Your task to perform on an android device: snooze an email in the gmail app Image 0: 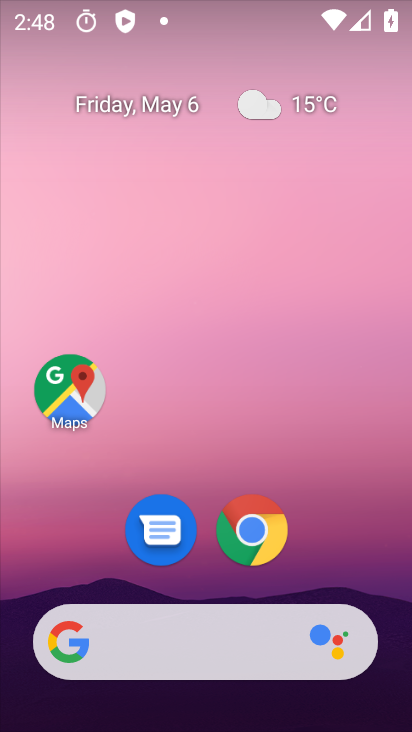
Step 0: drag from (341, 535) to (410, 18)
Your task to perform on an android device: snooze an email in the gmail app Image 1: 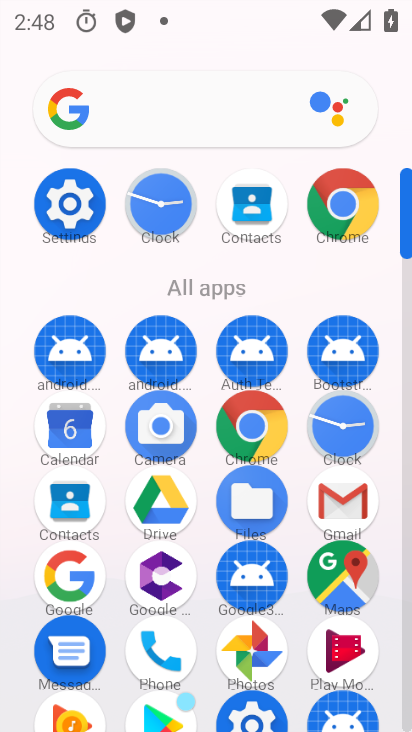
Step 1: click (331, 520)
Your task to perform on an android device: snooze an email in the gmail app Image 2: 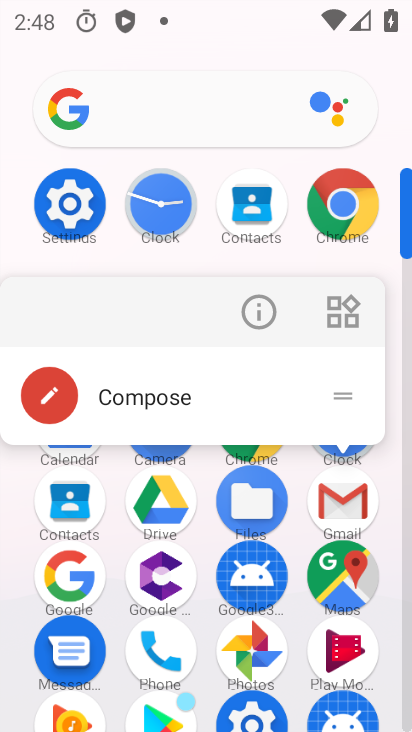
Step 2: click (355, 491)
Your task to perform on an android device: snooze an email in the gmail app Image 3: 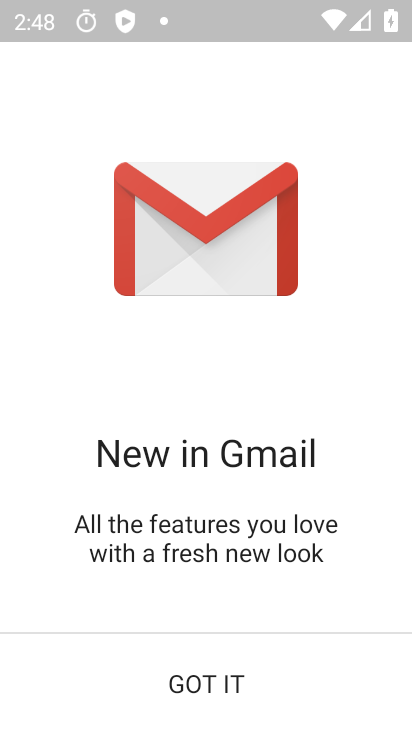
Step 3: click (238, 693)
Your task to perform on an android device: snooze an email in the gmail app Image 4: 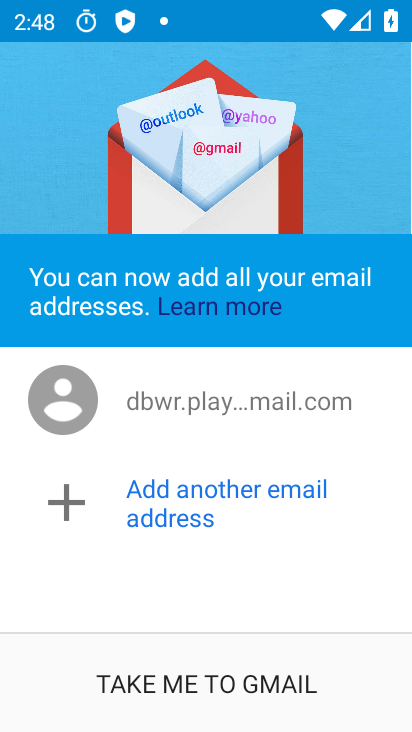
Step 4: click (236, 689)
Your task to perform on an android device: snooze an email in the gmail app Image 5: 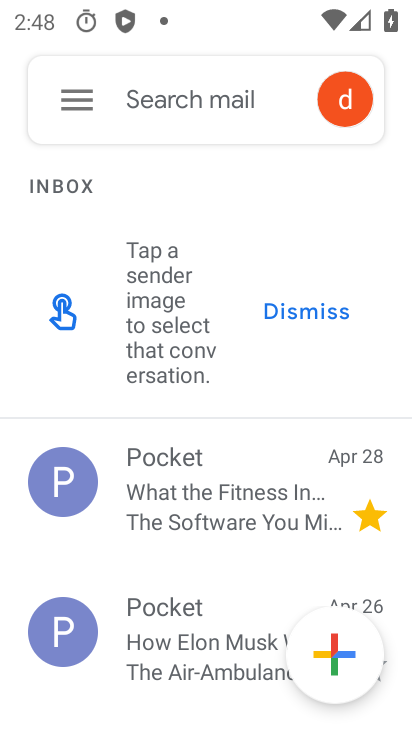
Step 5: click (176, 508)
Your task to perform on an android device: snooze an email in the gmail app Image 6: 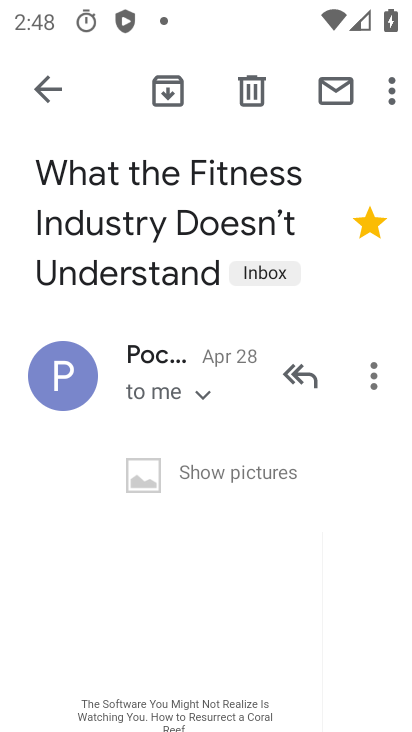
Step 6: click (390, 375)
Your task to perform on an android device: snooze an email in the gmail app Image 7: 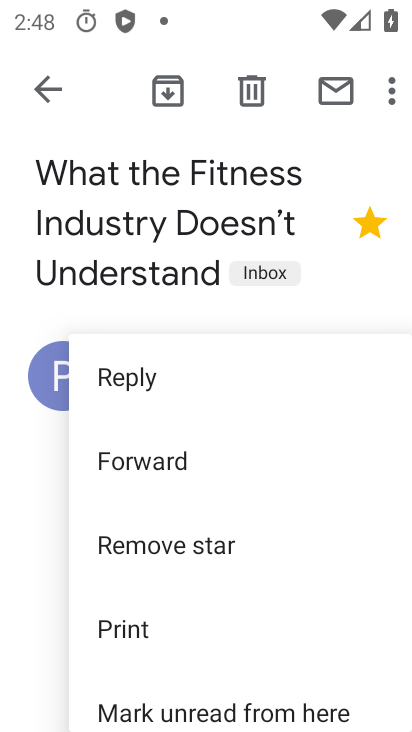
Step 7: drag from (300, 593) to (350, 306)
Your task to perform on an android device: snooze an email in the gmail app Image 8: 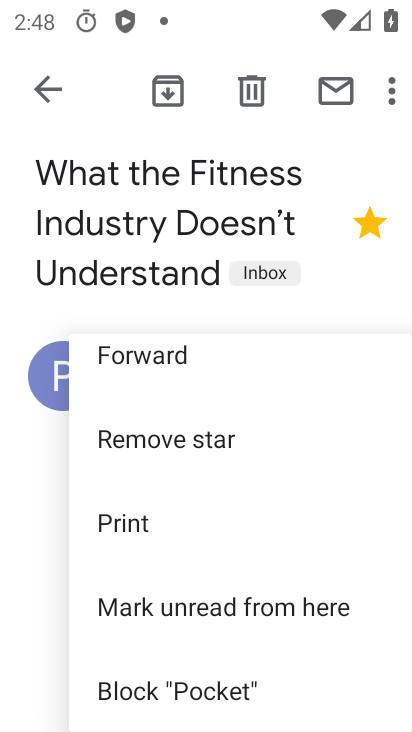
Step 8: click (381, 92)
Your task to perform on an android device: snooze an email in the gmail app Image 9: 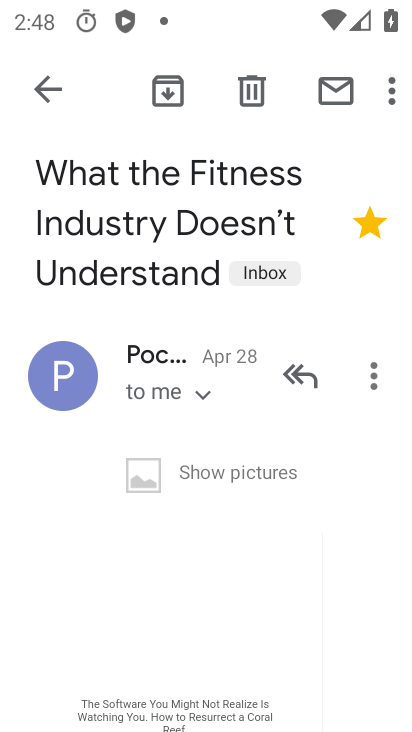
Step 9: click (382, 91)
Your task to perform on an android device: snooze an email in the gmail app Image 10: 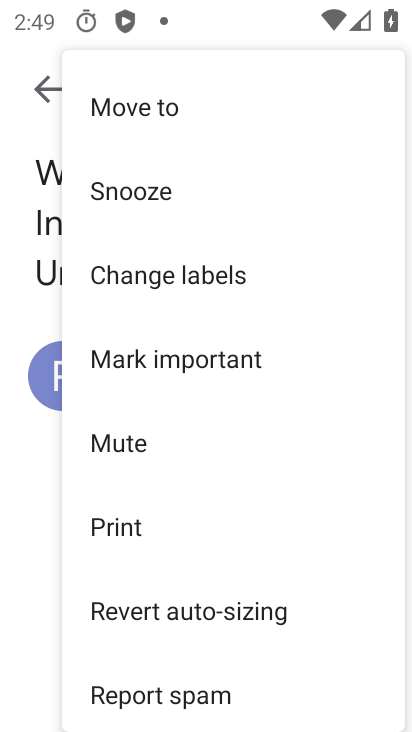
Step 10: click (165, 207)
Your task to perform on an android device: snooze an email in the gmail app Image 11: 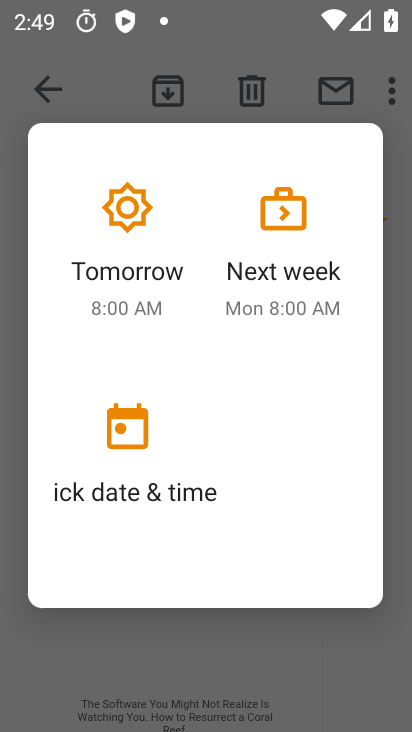
Step 11: click (131, 242)
Your task to perform on an android device: snooze an email in the gmail app Image 12: 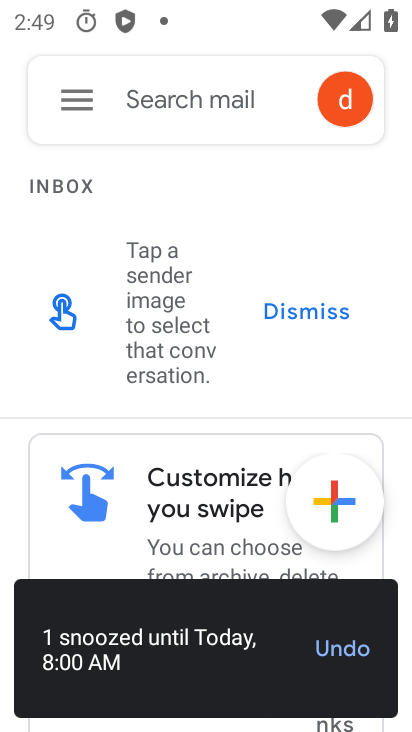
Step 12: task complete